Your task to perform on an android device: allow notifications from all sites in the chrome app Image 0: 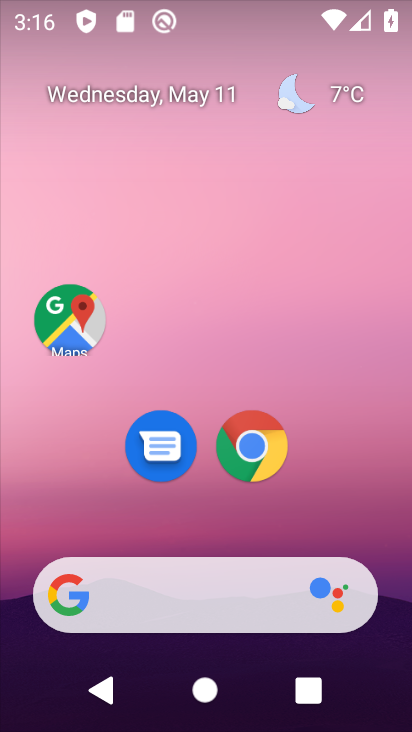
Step 0: drag from (359, 653) to (197, 13)
Your task to perform on an android device: allow notifications from all sites in the chrome app Image 1: 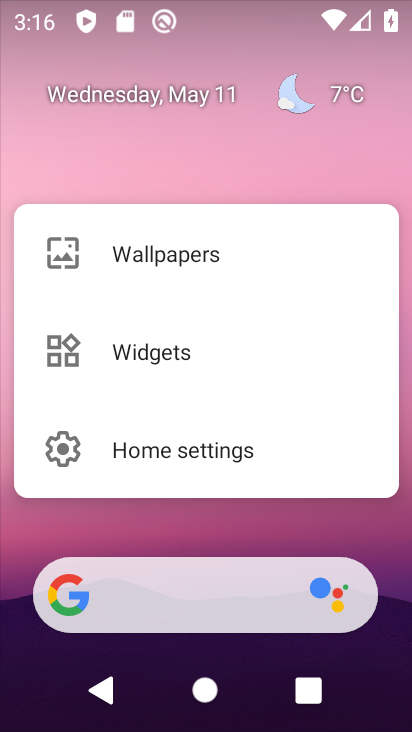
Step 1: click (219, 173)
Your task to perform on an android device: allow notifications from all sites in the chrome app Image 2: 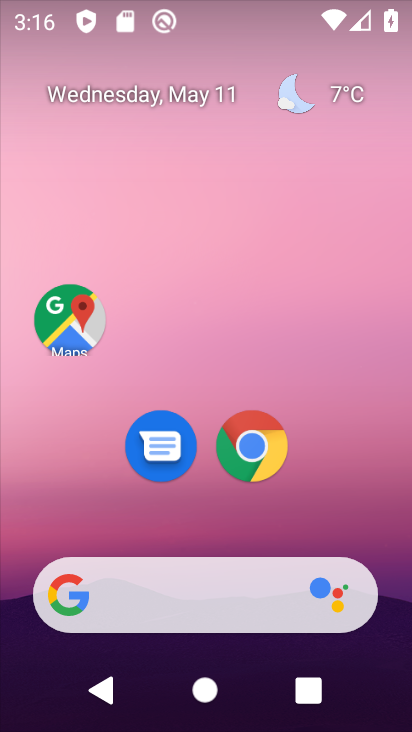
Step 2: drag from (381, 615) to (90, 53)
Your task to perform on an android device: allow notifications from all sites in the chrome app Image 3: 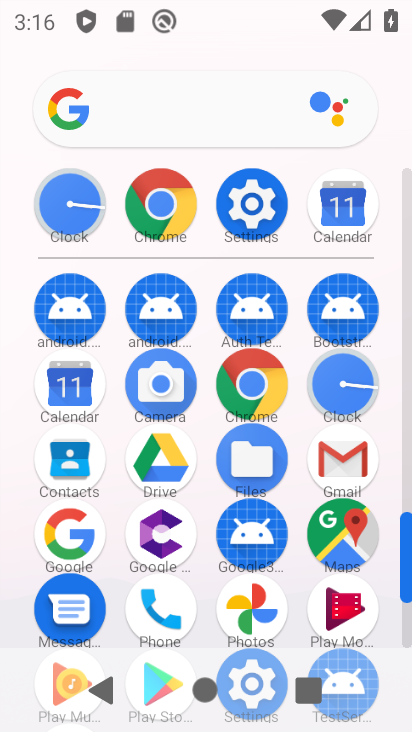
Step 3: click (169, 204)
Your task to perform on an android device: allow notifications from all sites in the chrome app Image 4: 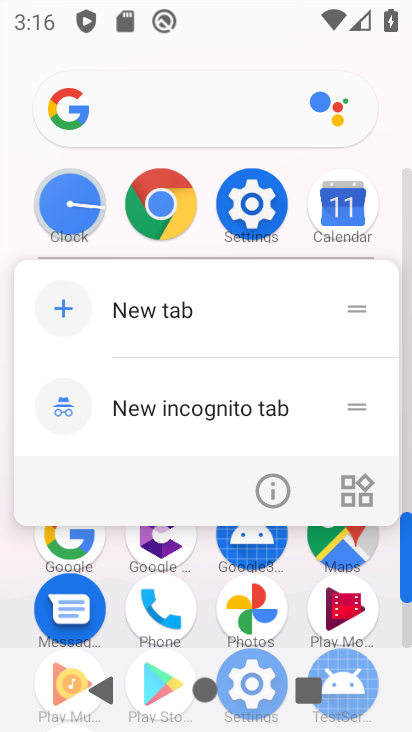
Step 4: click (169, 205)
Your task to perform on an android device: allow notifications from all sites in the chrome app Image 5: 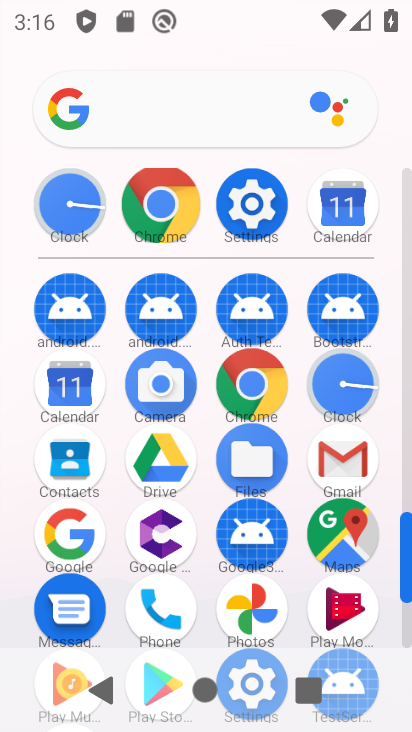
Step 5: click (171, 207)
Your task to perform on an android device: allow notifications from all sites in the chrome app Image 6: 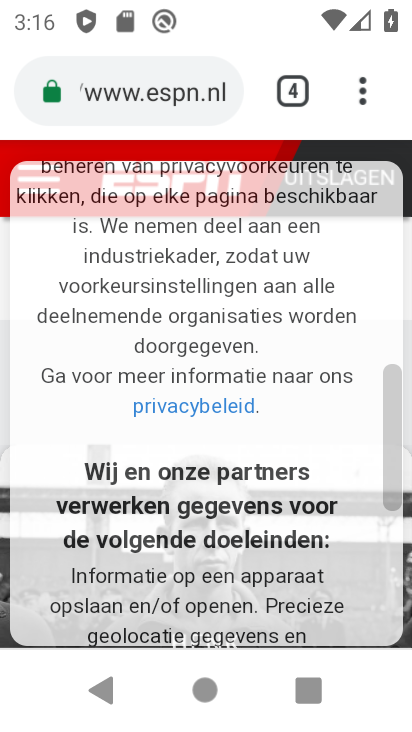
Step 6: drag from (360, 94) to (95, 474)
Your task to perform on an android device: allow notifications from all sites in the chrome app Image 7: 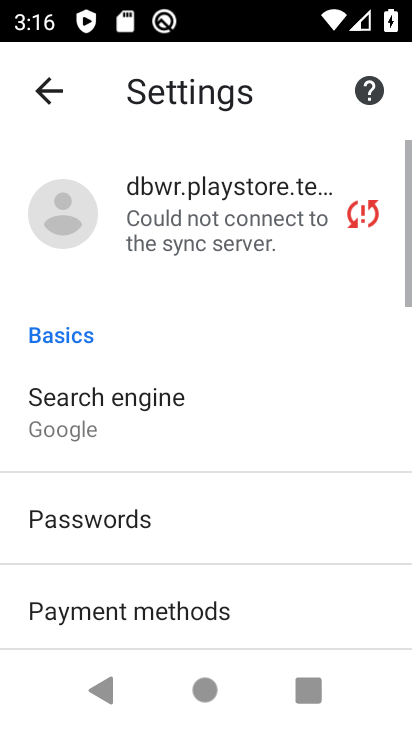
Step 7: click (104, 468)
Your task to perform on an android device: allow notifications from all sites in the chrome app Image 8: 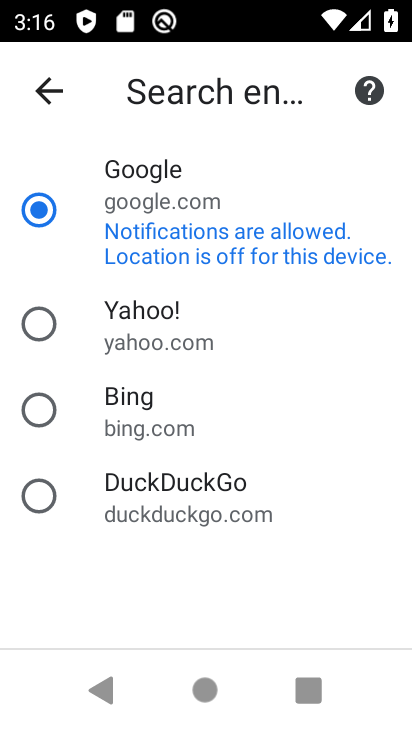
Step 8: drag from (256, 325) to (251, 147)
Your task to perform on an android device: allow notifications from all sites in the chrome app Image 9: 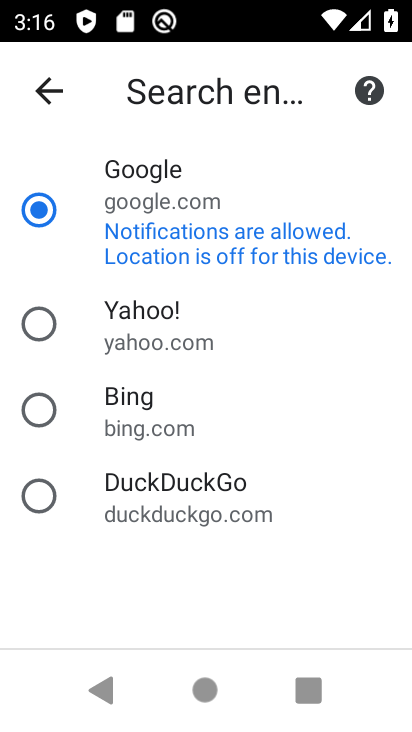
Step 9: drag from (246, 273) to (228, 189)
Your task to perform on an android device: allow notifications from all sites in the chrome app Image 10: 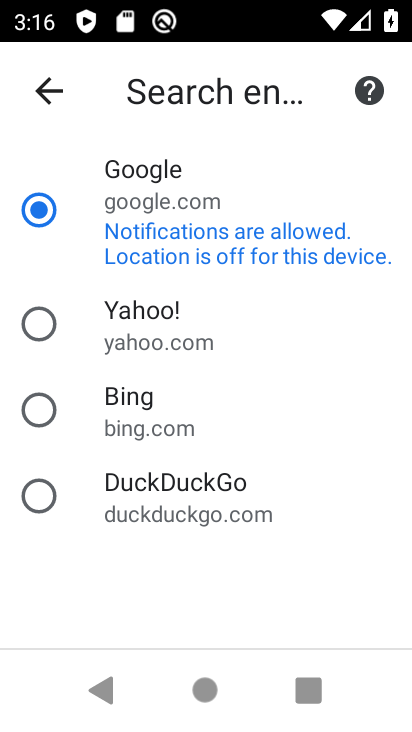
Step 10: click (47, 98)
Your task to perform on an android device: allow notifications from all sites in the chrome app Image 11: 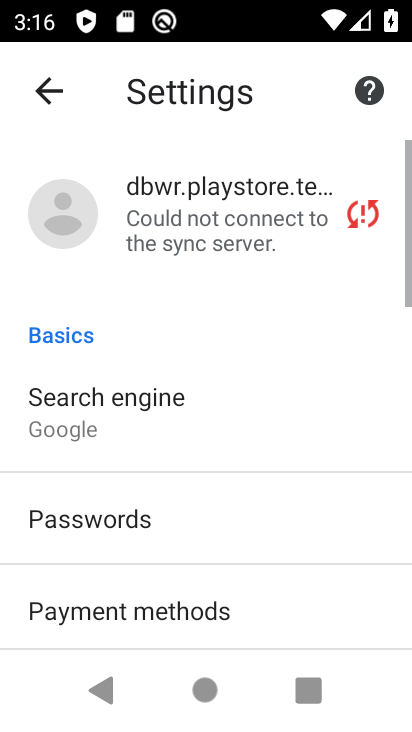
Step 11: drag from (206, 446) to (186, 205)
Your task to perform on an android device: allow notifications from all sites in the chrome app Image 12: 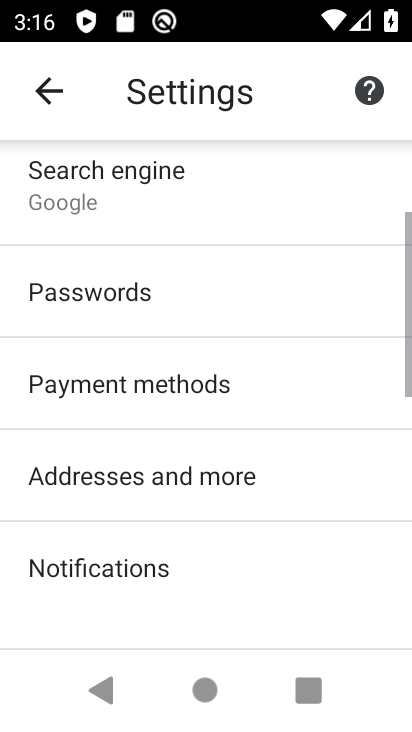
Step 12: drag from (223, 468) to (198, 176)
Your task to perform on an android device: allow notifications from all sites in the chrome app Image 13: 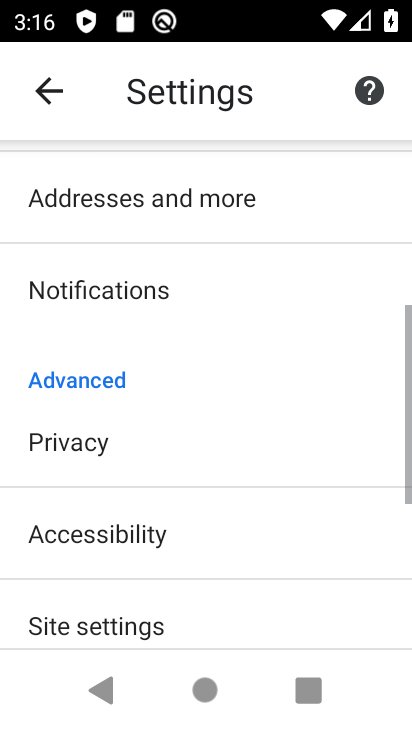
Step 13: drag from (192, 348) to (174, 194)
Your task to perform on an android device: allow notifications from all sites in the chrome app Image 14: 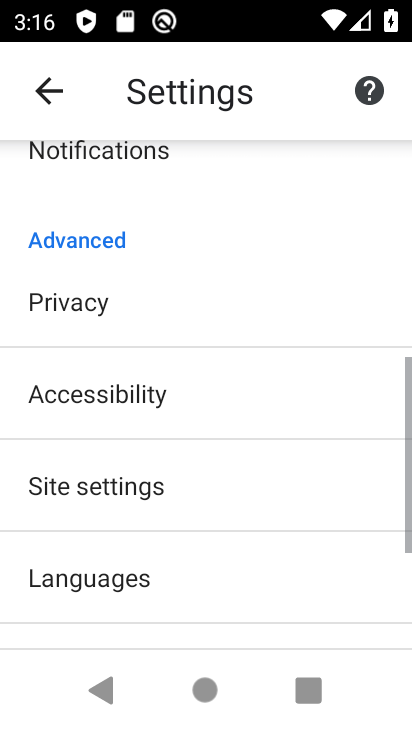
Step 14: click (190, 125)
Your task to perform on an android device: allow notifications from all sites in the chrome app Image 15: 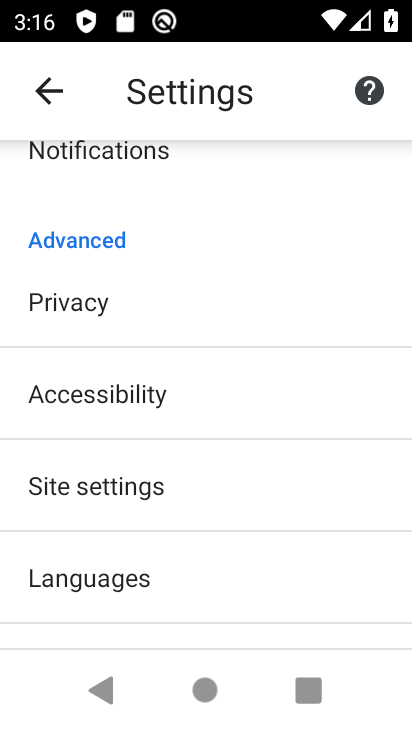
Step 15: task complete